Your task to perform on an android device: open sync settings in chrome Image 0: 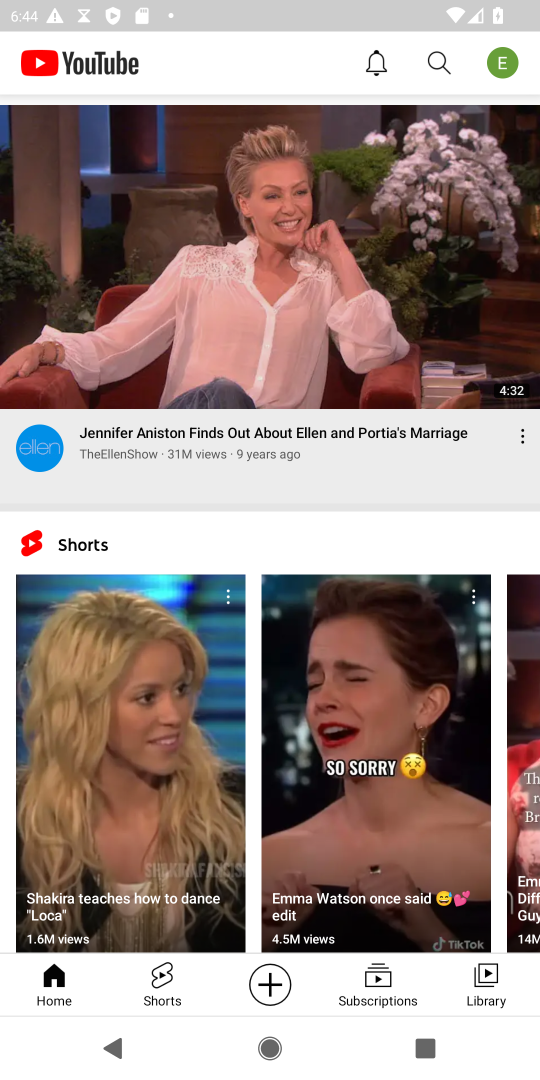
Step 0: press home button
Your task to perform on an android device: open sync settings in chrome Image 1: 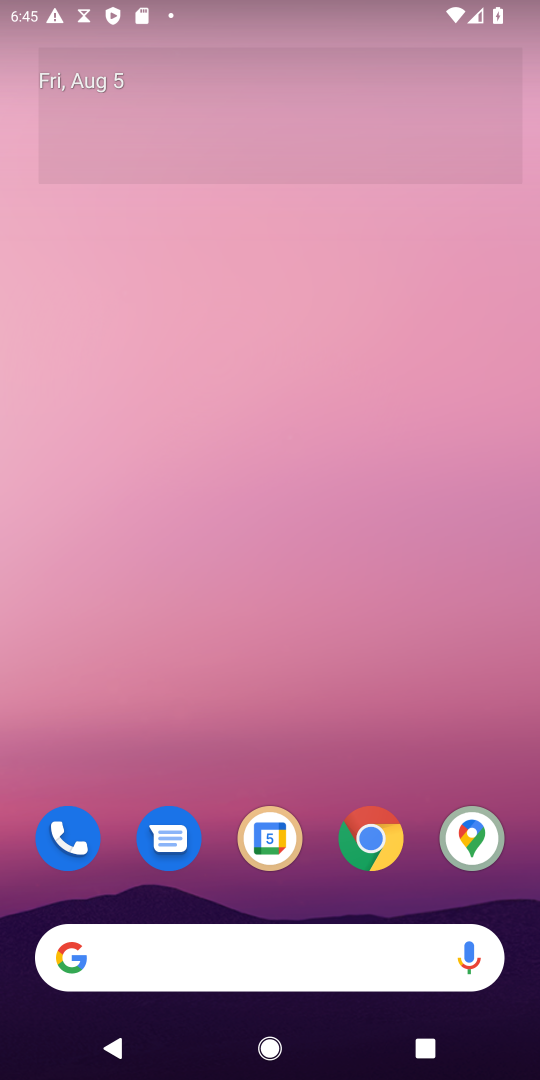
Step 1: click (371, 845)
Your task to perform on an android device: open sync settings in chrome Image 2: 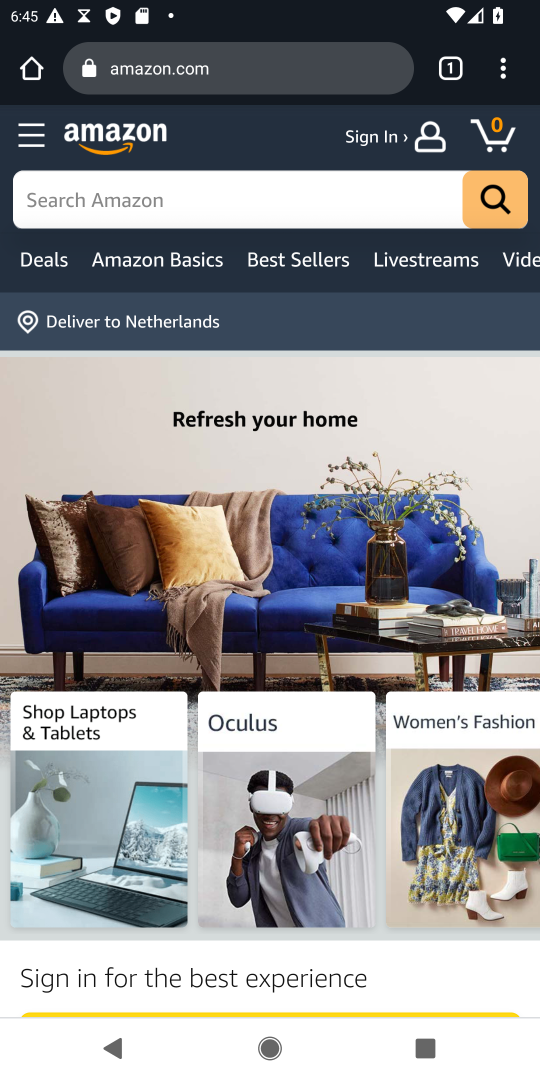
Step 2: drag from (503, 71) to (304, 867)
Your task to perform on an android device: open sync settings in chrome Image 3: 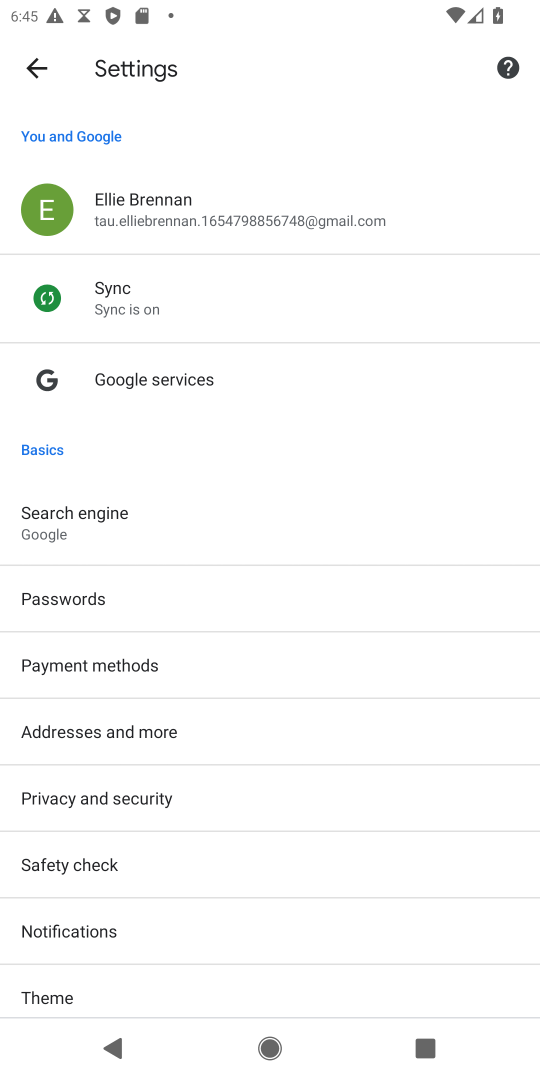
Step 3: drag from (224, 965) to (209, 604)
Your task to perform on an android device: open sync settings in chrome Image 4: 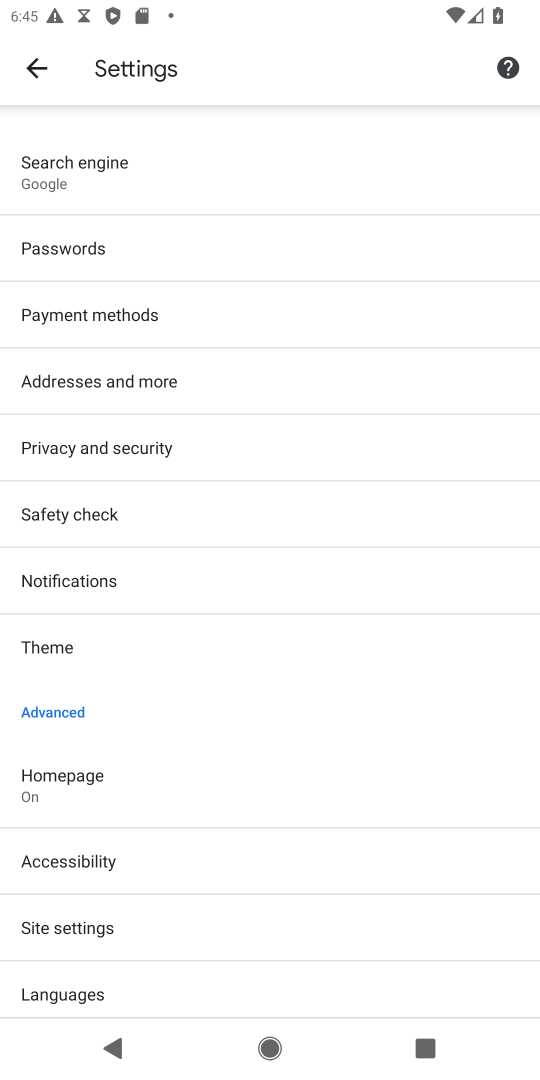
Step 4: click (159, 911)
Your task to perform on an android device: open sync settings in chrome Image 5: 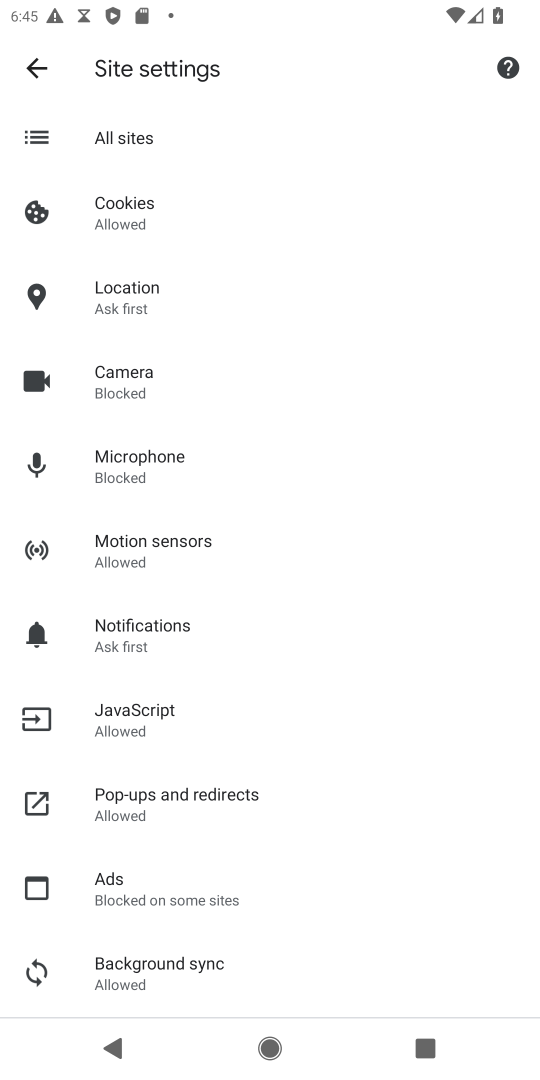
Step 5: click (146, 970)
Your task to perform on an android device: open sync settings in chrome Image 6: 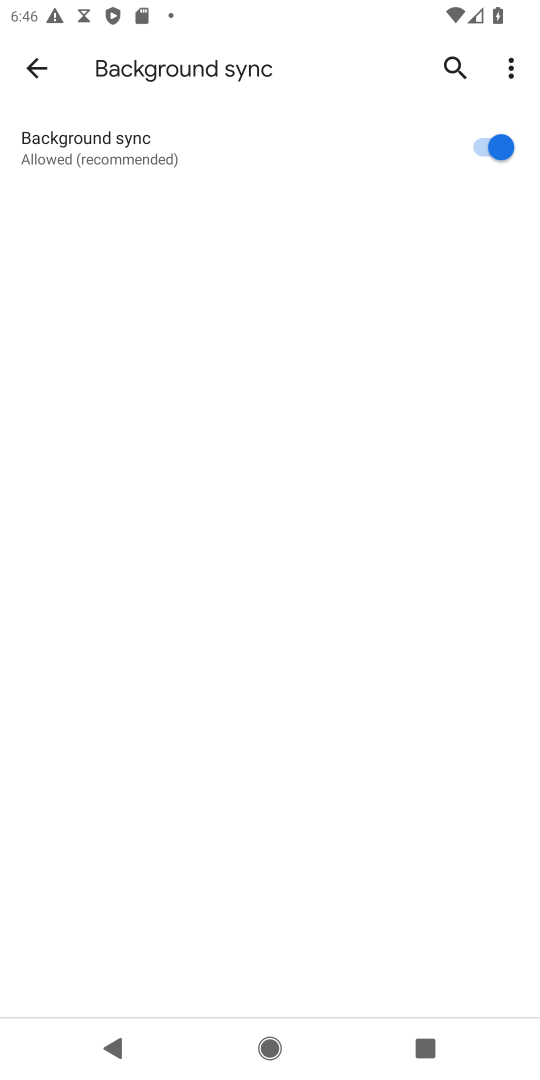
Step 6: task complete